Your task to perform on an android device: Search for the most popular coffee table on Crate & Barrel Image 0: 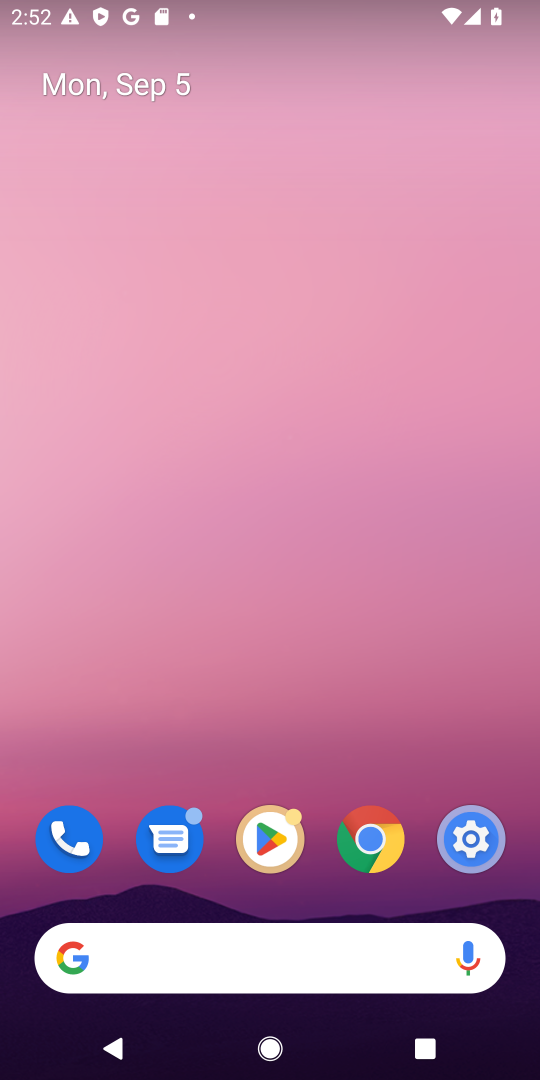
Step 0: click (275, 947)
Your task to perform on an android device: Search for the most popular coffee table on Crate & Barrel Image 1: 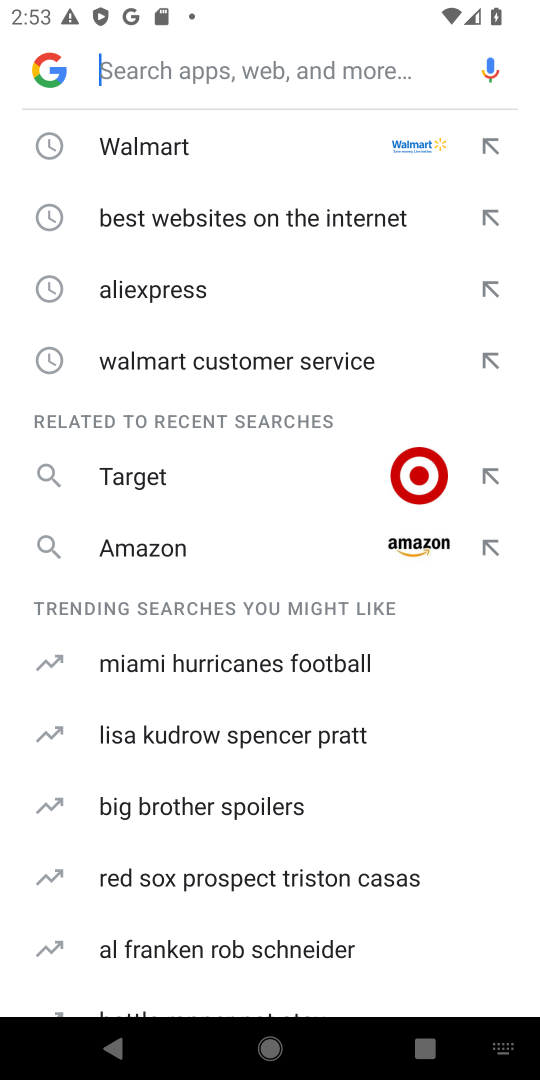
Step 1: type "crate & barrel"
Your task to perform on an android device: Search for the most popular coffee table on Crate & Barrel Image 2: 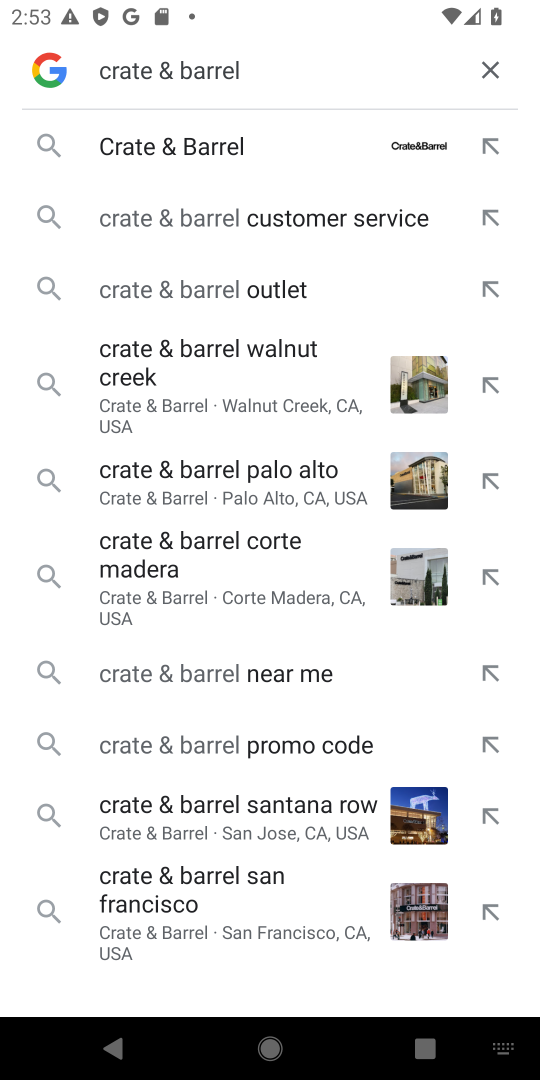
Step 2: type ""
Your task to perform on an android device: Search for the most popular coffee table on Crate & Barrel Image 3: 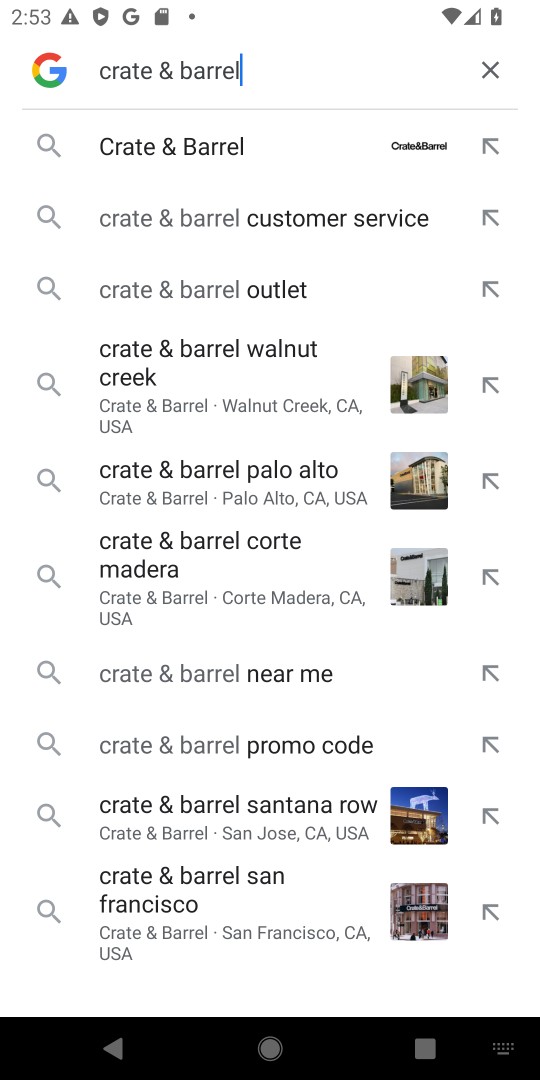
Step 3: type ""
Your task to perform on an android device: Search for the most popular coffee table on Crate & Barrel Image 4: 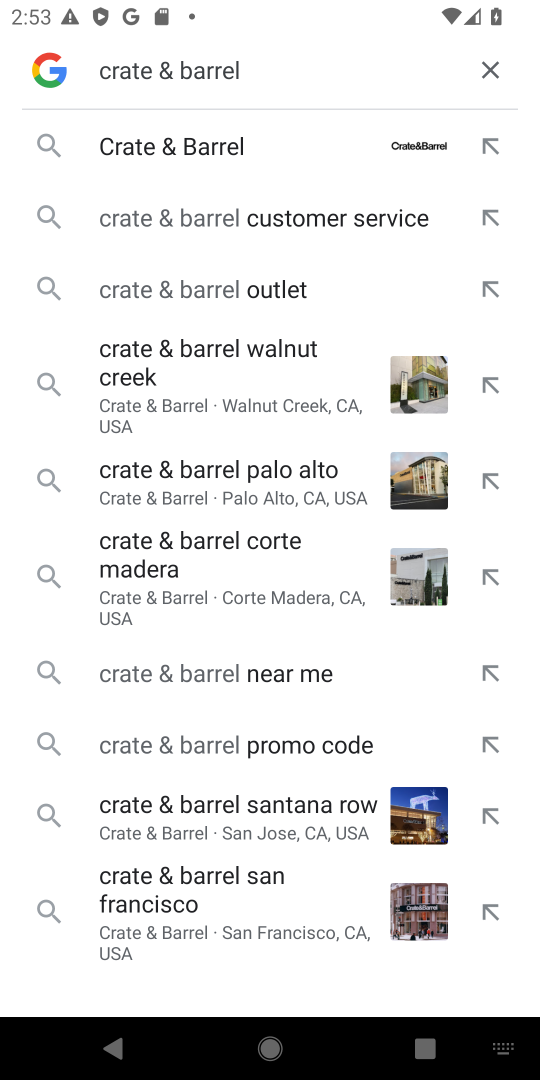
Step 4: press enter
Your task to perform on an android device: Search for the most popular coffee table on Crate & Barrel Image 5: 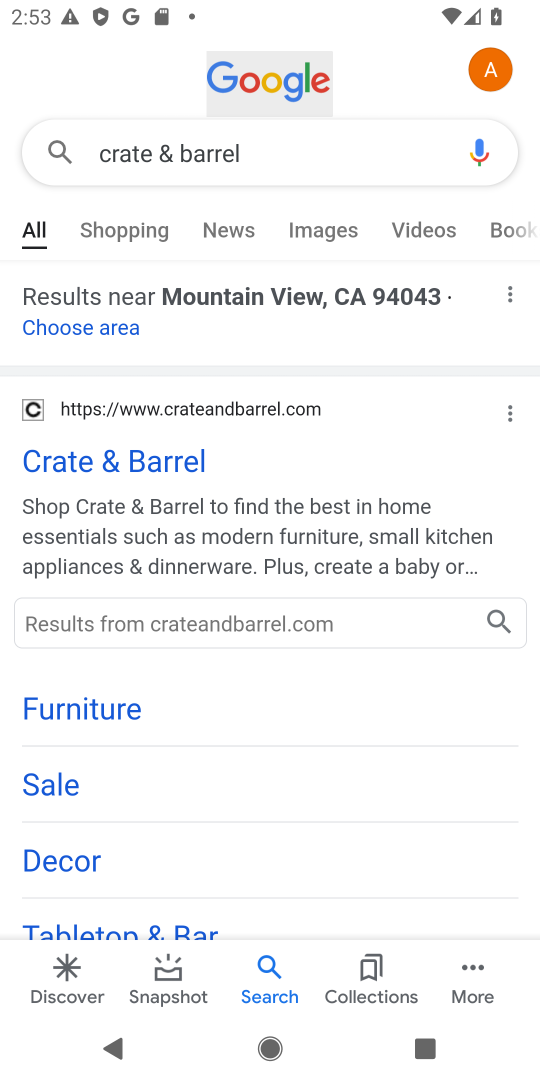
Step 5: click (117, 456)
Your task to perform on an android device: Search for the most popular coffee table on Crate & Barrel Image 6: 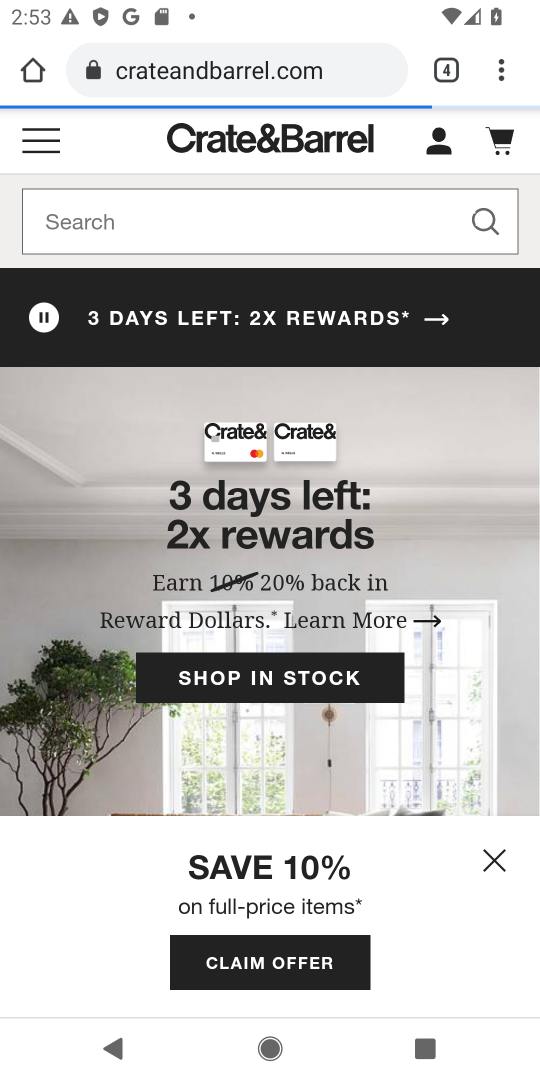
Step 6: click (218, 226)
Your task to perform on an android device: Search for the most popular coffee table on Crate & Barrel Image 7: 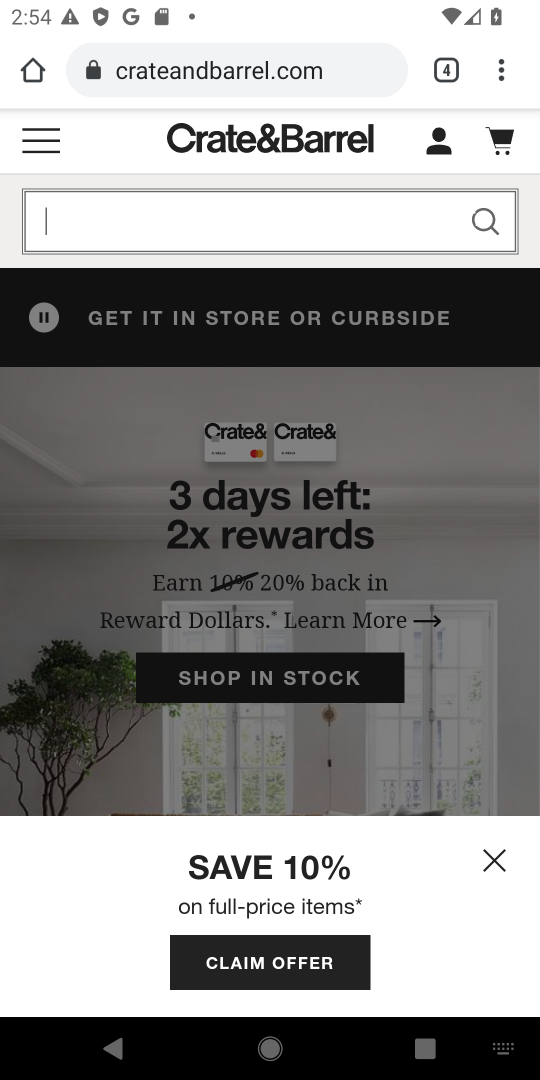
Step 7: type "coffee table"
Your task to perform on an android device: Search for the most popular coffee table on Crate & Barrel Image 8: 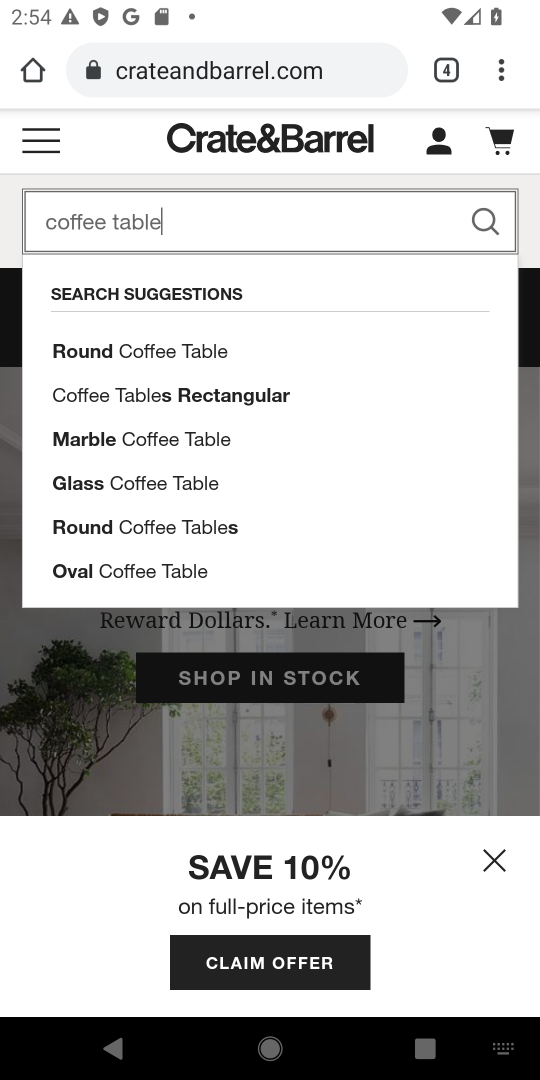
Step 8: type ""
Your task to perform on an android device: Search for the most popular coffee table on Crate & Barrel Image 9: 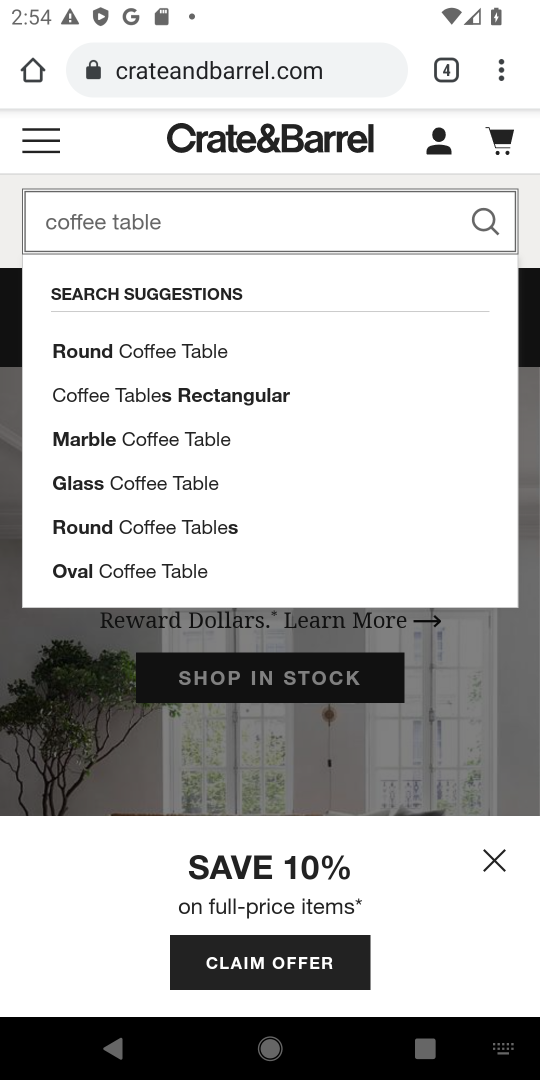
Step 9: press enter
Your task to perform on an android device: Search for the most popular coffee table on Crate & Barrel Image 10: 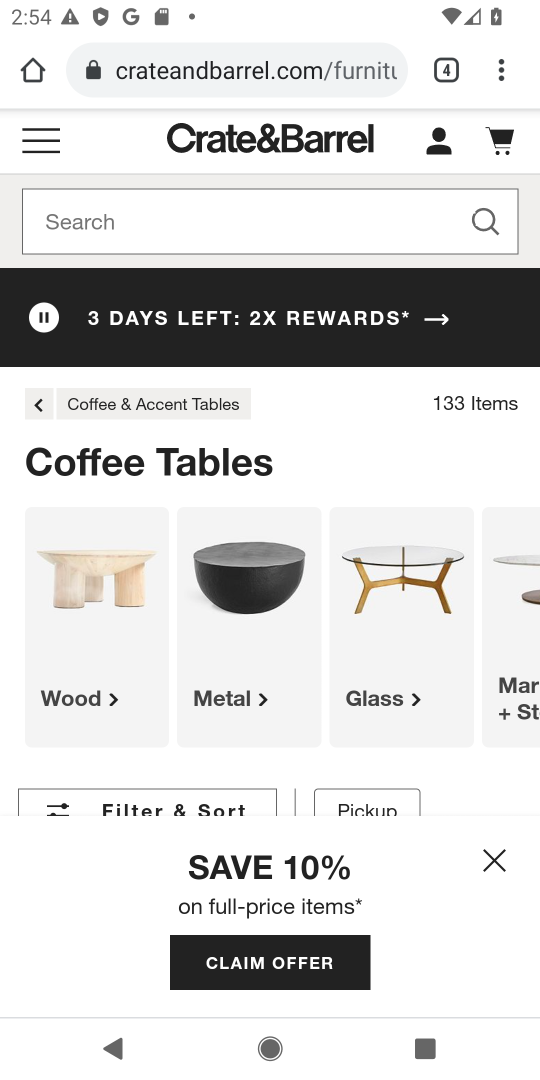
Step 10: click (505, 855)
Your task to perform on an android device: Search for the most popular coffee table on Crate & Barrel Image 11: 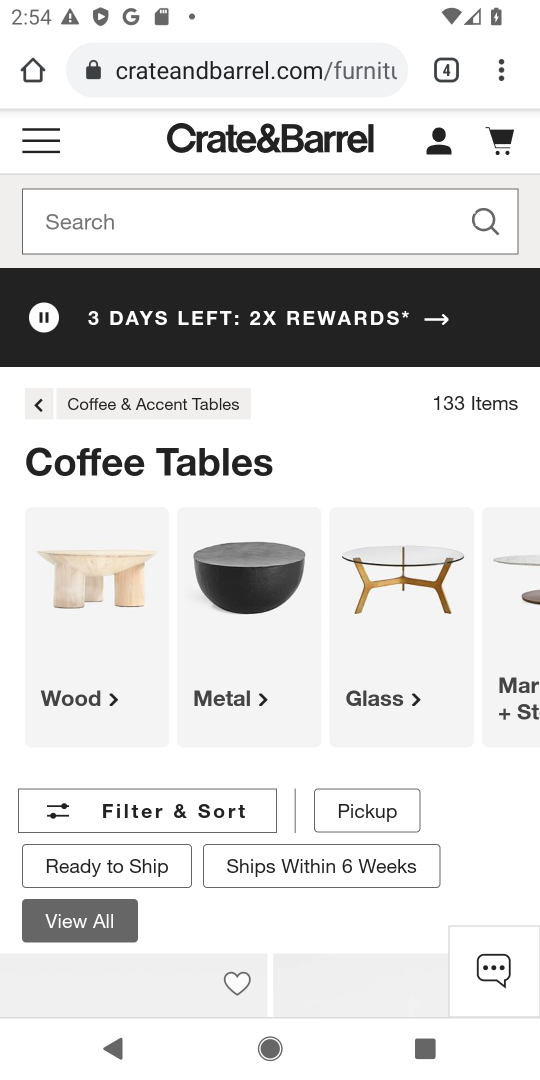
Step 11: click (128, 811)
Your task to perform on an android device: Search for the most popular coffee table on Crate & Barrel Image 12: 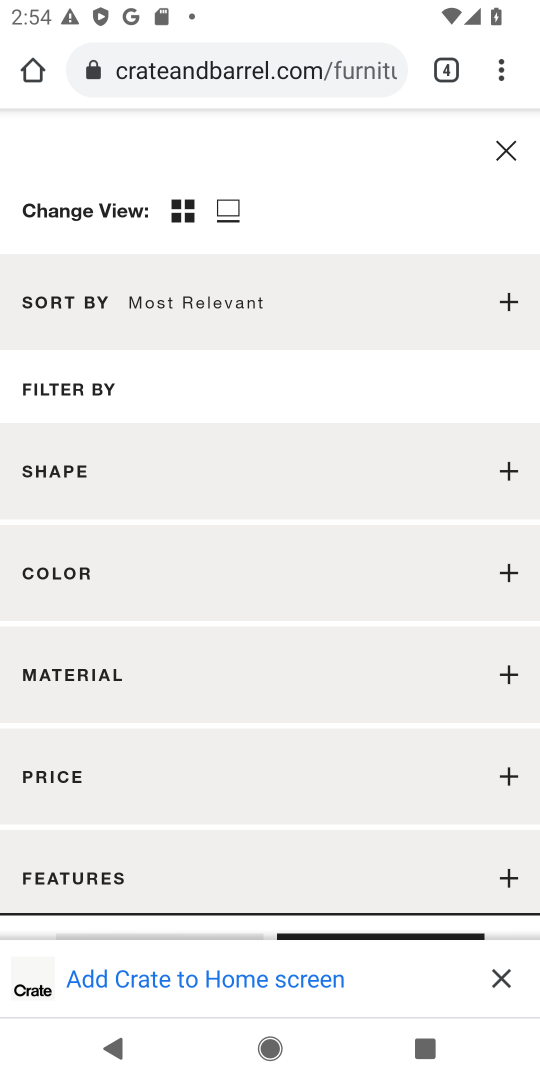
Step 12: click (448, 188)
Your task to perform on an android device: Search for the most popular coffee table on Crate & Barrel Image 13: 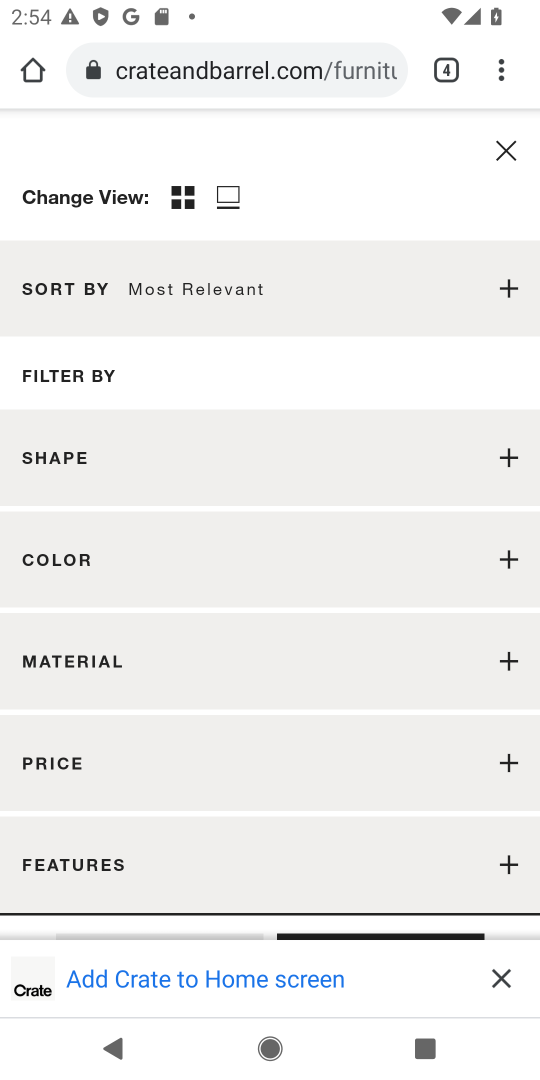
Step 13: click (511, 289)
Your task to perform on an android device: Search for the most popular coffee table on Crate & Barrel Image 14: 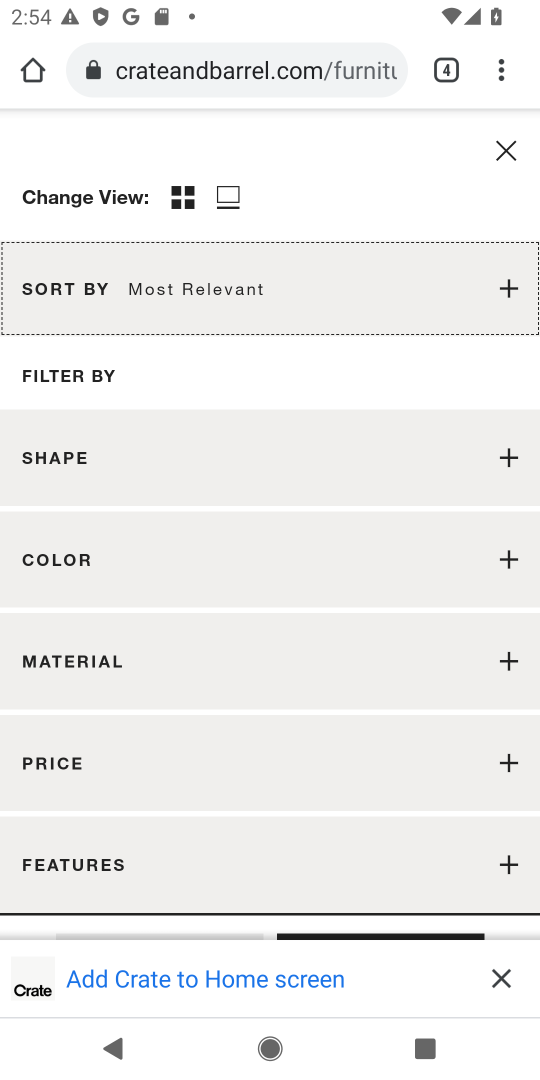
Step 14: click (511, 282)
Your task to perform on an android device: Search for the most popular coffee table on Crate & Barrel Image 15: 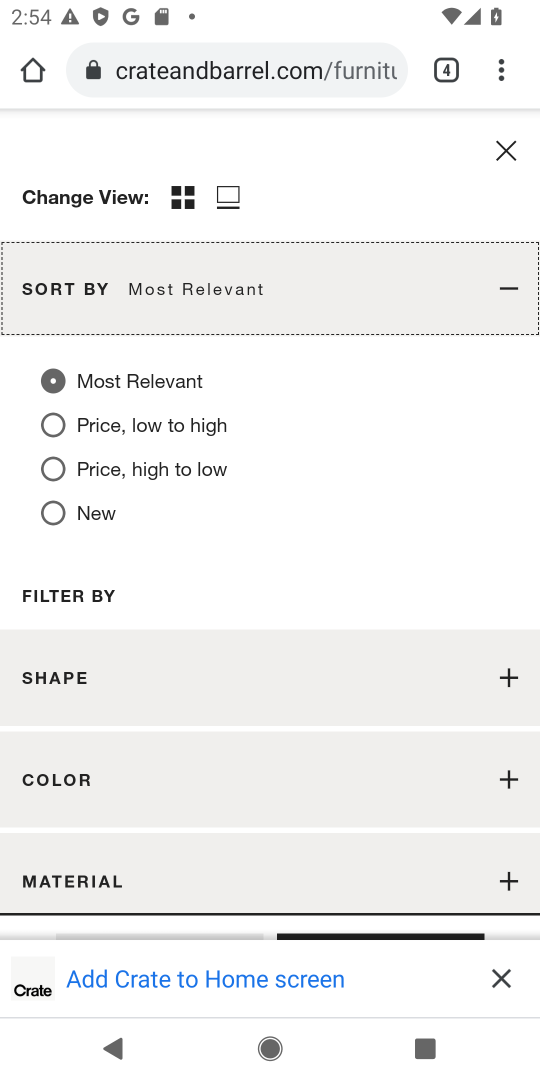
Step 15: click (149, 370)
Your task to perform on an android device: Search for the most popular coffee table on Crate & Barrel Image 16: 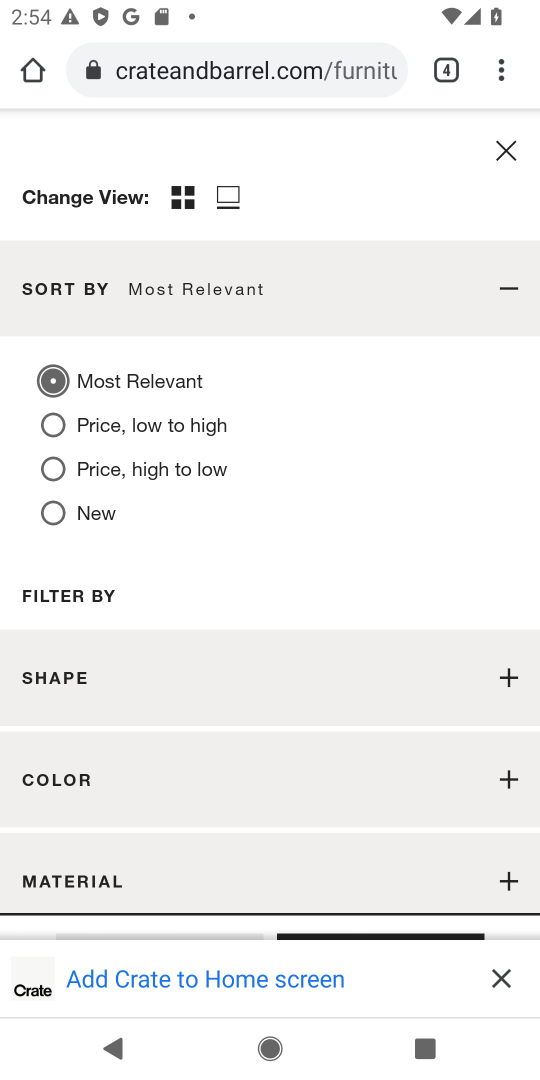
Step 16: click (503, 979)
Your task to perform on an android device: Search for the most popular coffee table on Crate & Barrel Image 17: 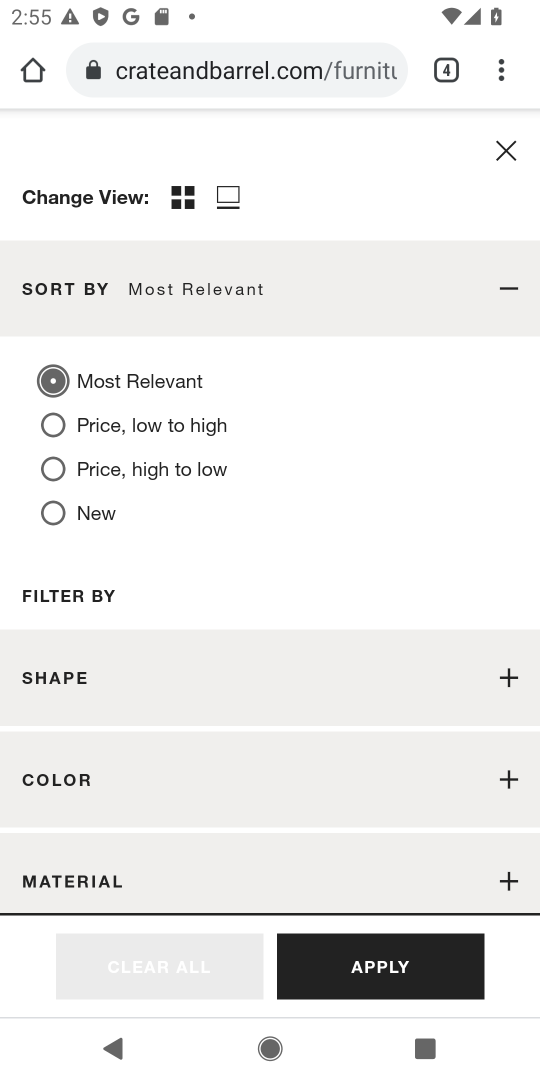
Step 17: click (386, 957)
Your task to perform on an android device: Search for the most popular coffee table on Crate & Barrel Image 18: 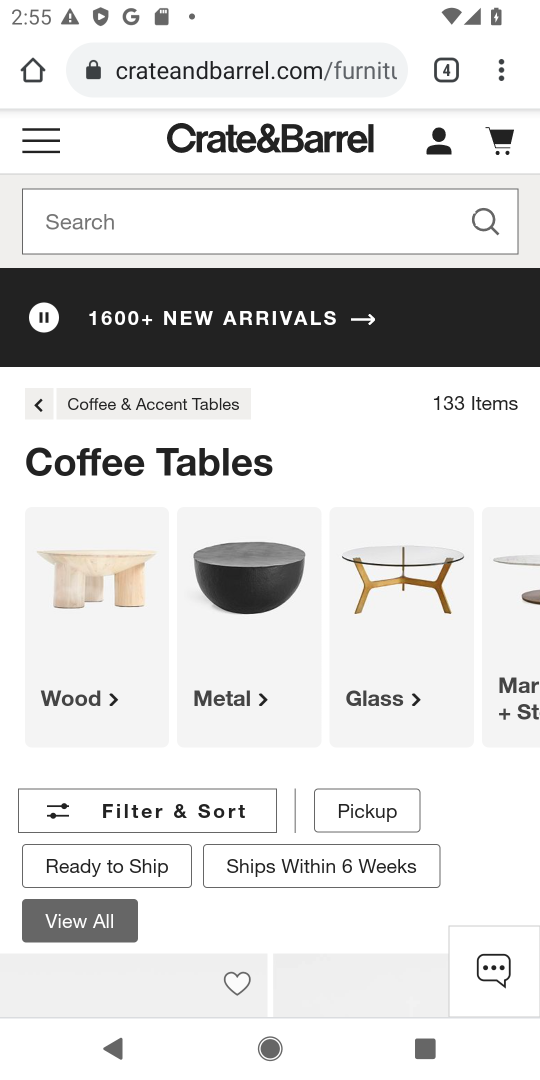
Step 18: drag from (454, 879) to (488, 432)
Your task to perform on an android device: Search for the most popular coffee table on Crate & Barrel Image 19: 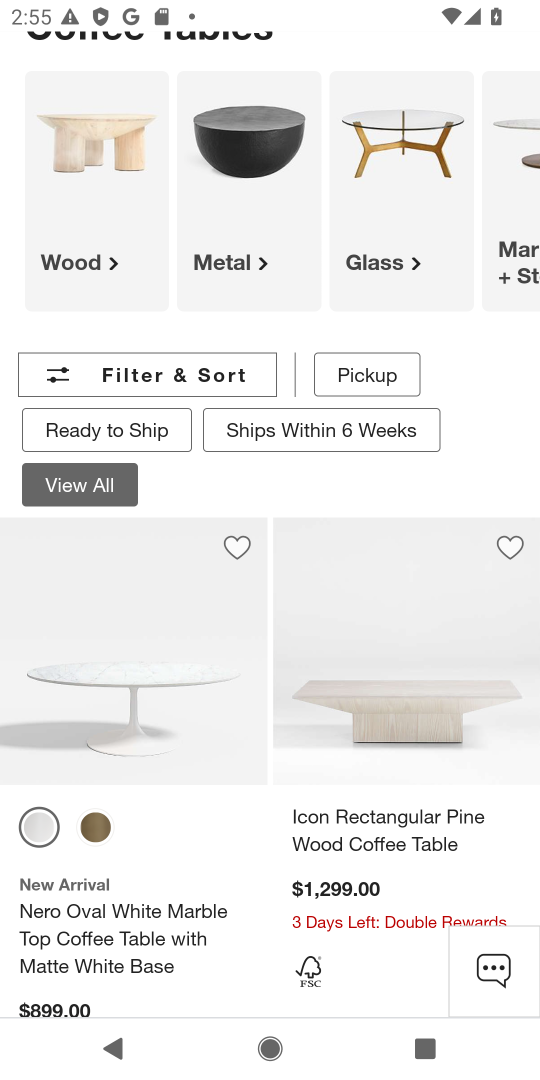
Step 19: drag from (459, 482) to (476, 261)
Your task to perform on an android device: Search for the most popular coffee table on Crate & Barrel Image 20: 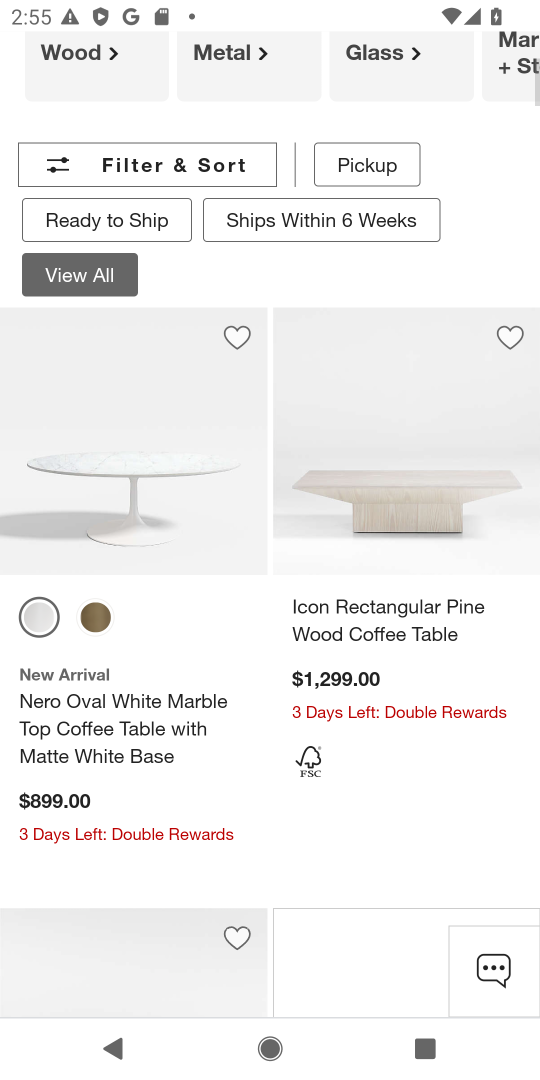
Step 20: drag from (474, 190) to (446, 651)
Your task to perform on an android device: Search for the most popular coffee table on Crate & Barrel Image 21: 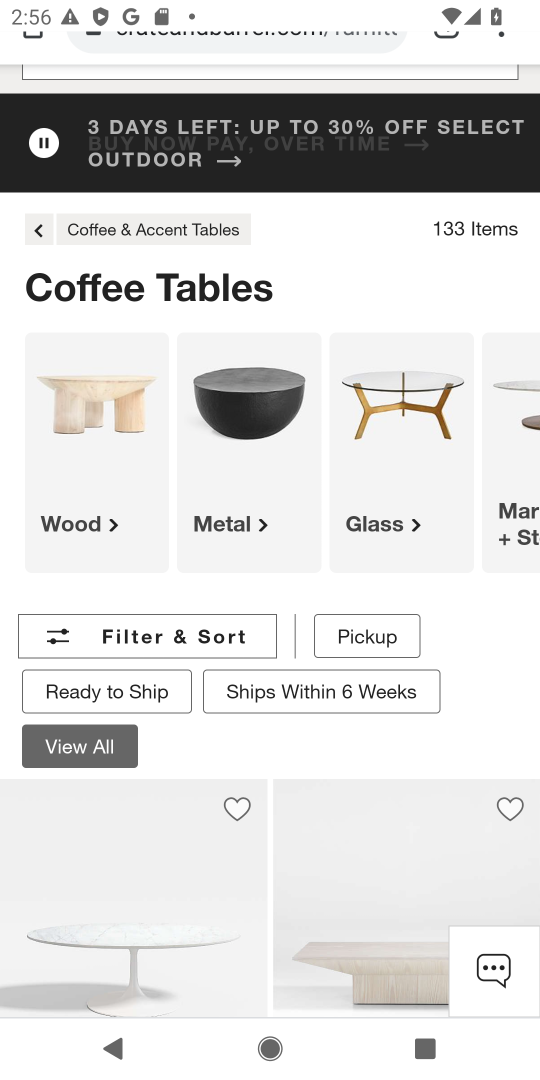
Step 21: click (446, 651)
Your task to perform on an android device: Search for the most popular coffee table on Crate & Barrel Image 22: 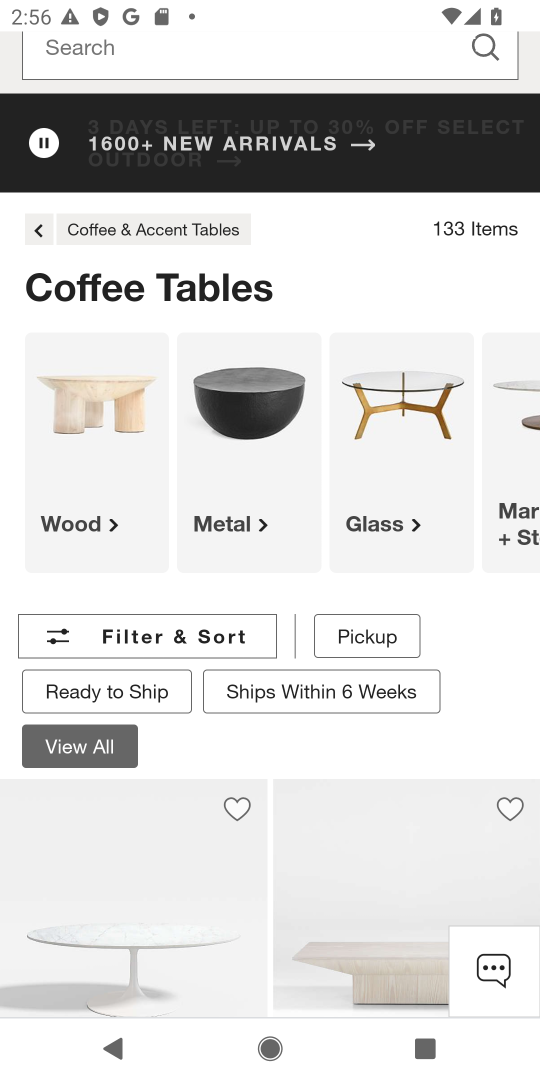
Step 22: task complete